Your task to perform on an android device: Search for Mexican restaurants on Maps Image 0: 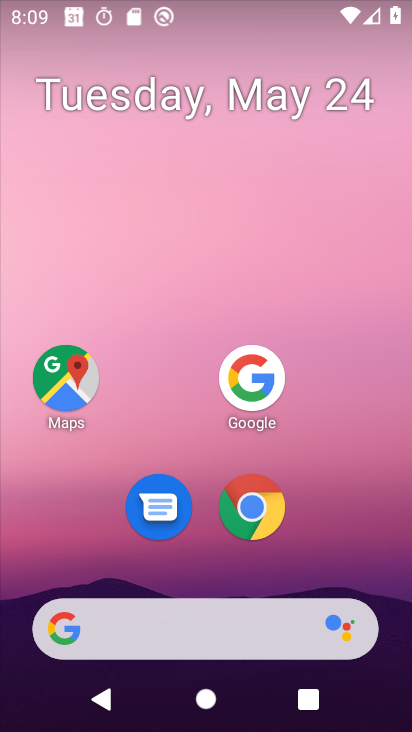
Step 0: press home button
Your task to perform on an android device: Search for Mexican restaurants on Maps Image 1: 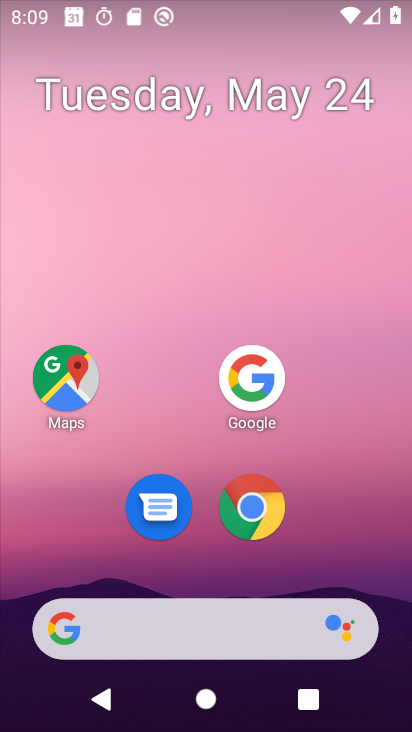
Step 1: click (71, 387)
Your task to perform on an android device: Search for Mexican restaurants on Maps Image 2: 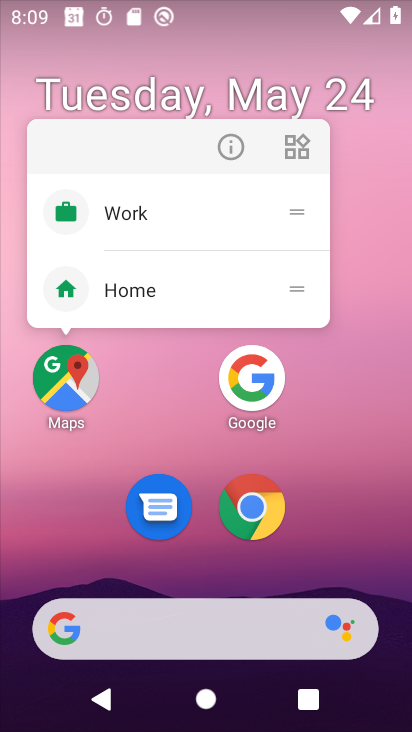
Step 2: click (65, 391)
Your task to perform on an android device: Search for Mexican restaurants on Maps Image 3: 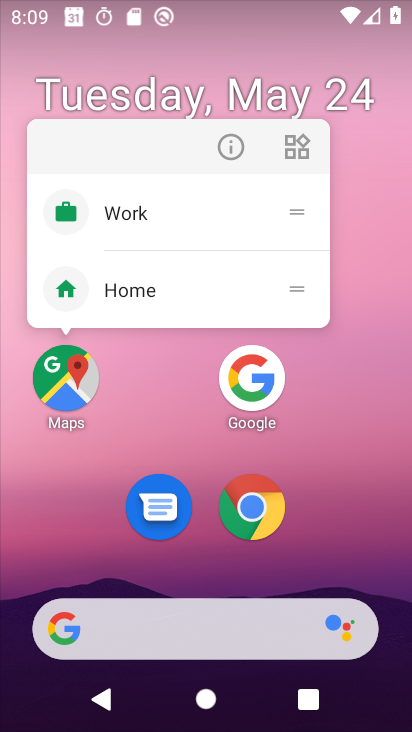
Step 3: click (61, 394)
Your task to perform on an android device: Search for Mexican restaurants on Maps Image 4: 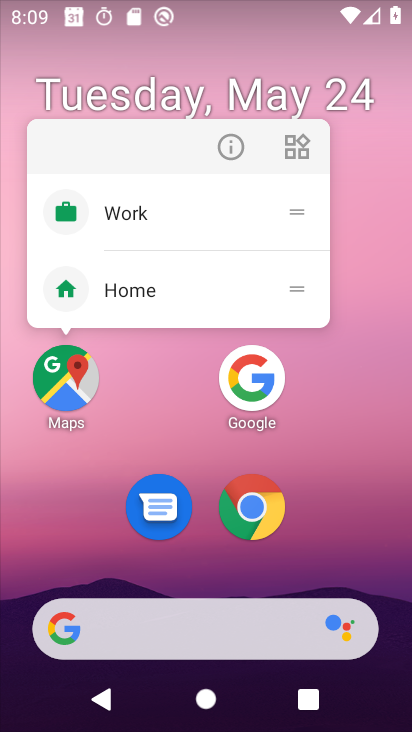
Step 4: click (61, 393)
Your task to perform on an android device: Search for Mexican restaurants on Maps Image 5: 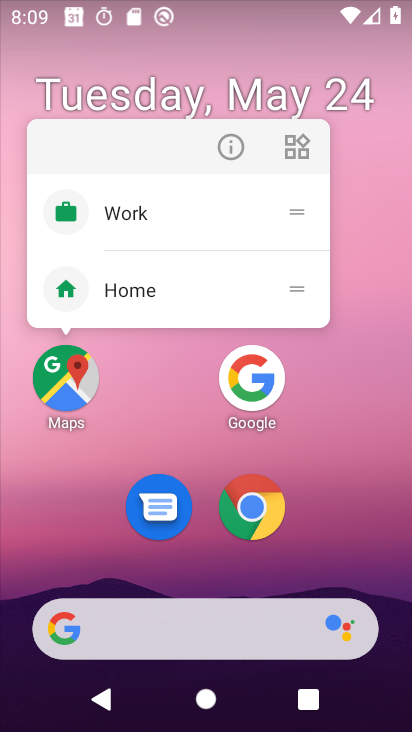
Step 5: click (60, 392)
Your task to perform on an android device: Search for Mexican restaurants on Maps Image 6: 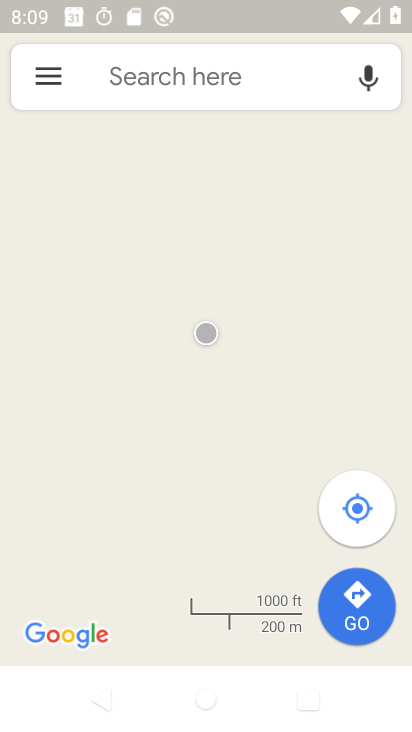
Step 6: click (192, 82)
Your task to perform on an android device: Search for Mexican restaurants on Maps Image 7: 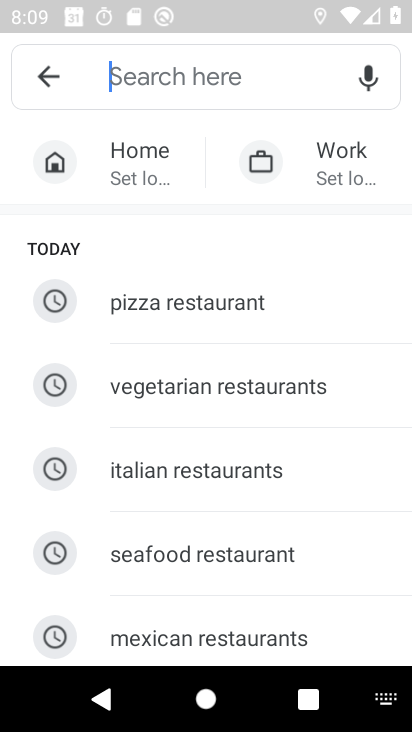
Step 7: click (222, 631)
Your task to perform on an android device: Search for Mexican restaurants on Maps Image 8: 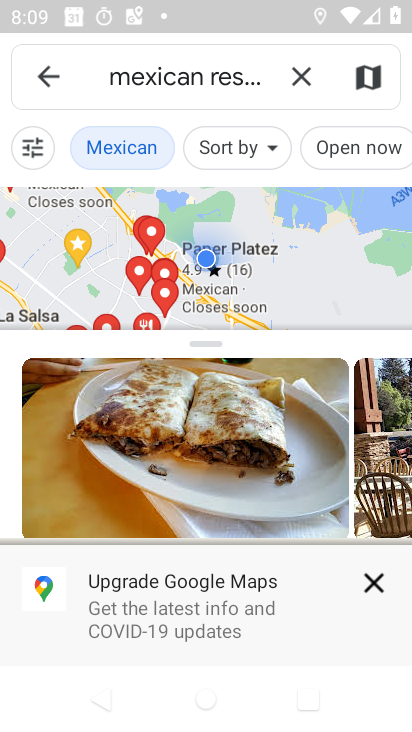
Step 8: task complete